Your task to perform on an android device: Open Chrome and go to settings Image 0: 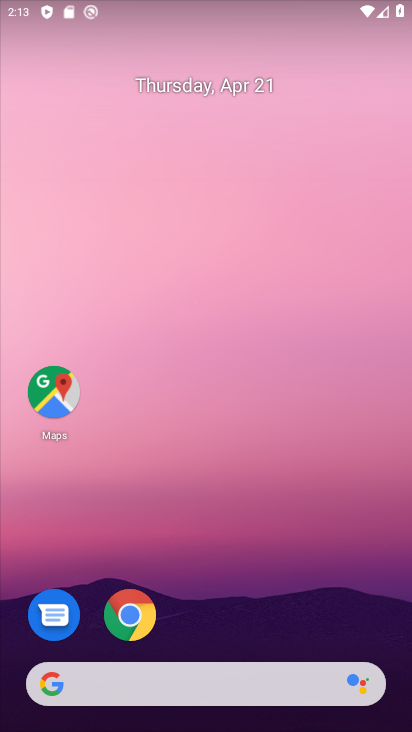
Step 0: click (120, 615)
Your task to perform on an android device: Open Chrome and go to settings Image 1: 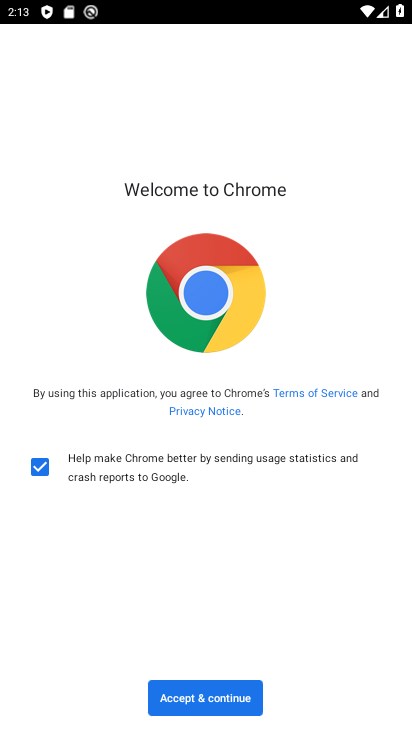
Step 1: click (220, 692)
Your task to perform on an android device: Open Chrome and go to settings Image 2: 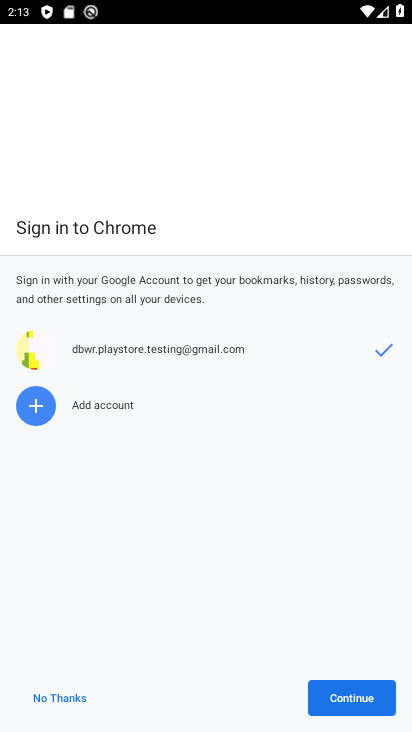
Step 2: click (361, 696)
Your task to perform on an android device: Open Chrome and go to settings Image 3: 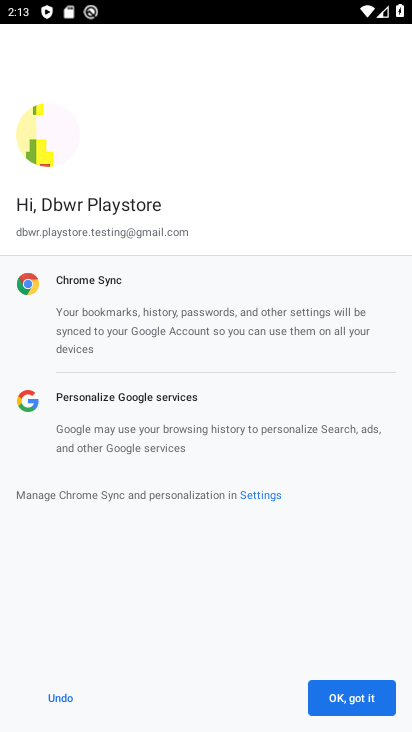
Step 3: click (366, 697)
Your task to perform on an android device: Open Chrome and go to settings Image 4: 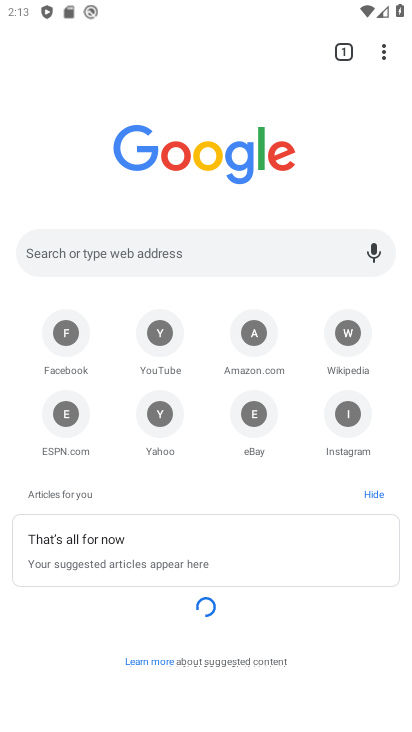
Step 4: click (383, 52)
Your task to perform on an android device: Open Chrome and go to settings Image 5: 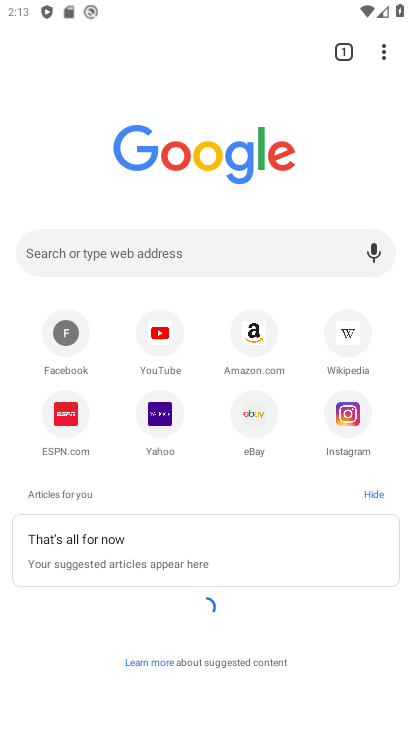
Step 5: task complete